Your task to perform on an android device: turn on airplane mode Image 0: 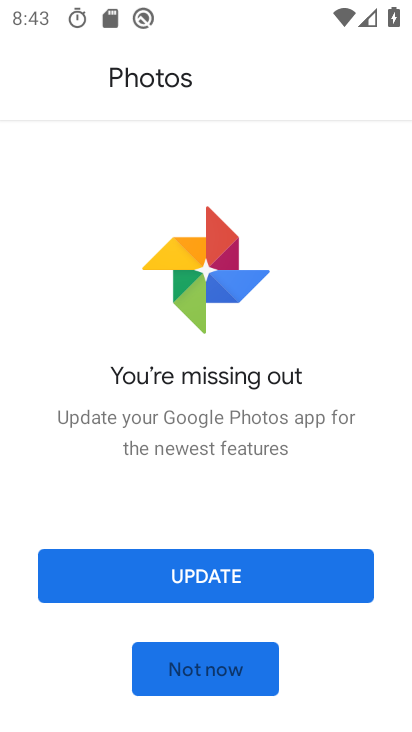
Step 0: press back button
Your task to perform on an android device: turn on airplane mode Image 1: 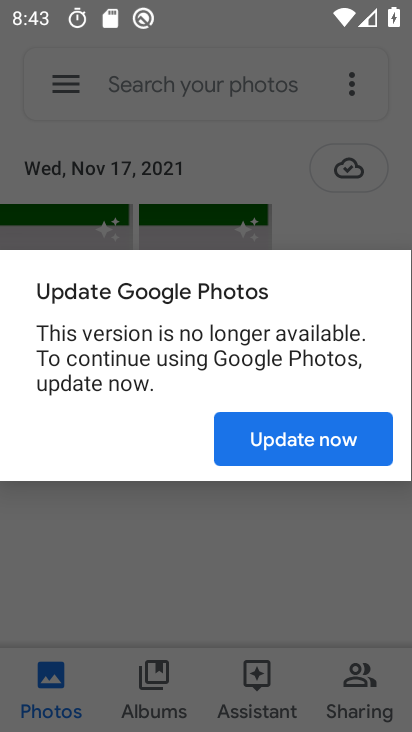
Step 1: press home button
Your task to perform on an android device: turn on airplane mode Image 2: 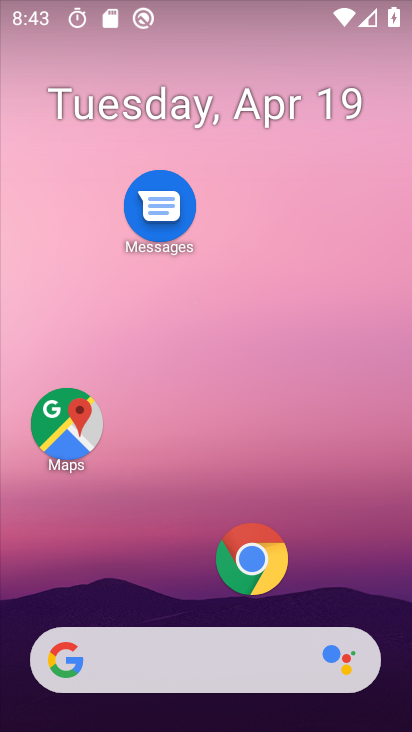
Step 2: drag from (201, 659) to (136, 5)
Your task to perform on an android device: turn on airplane mode Image 3: 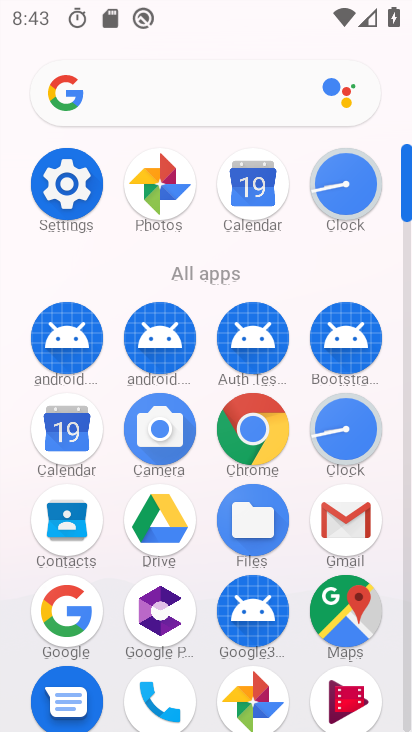
Step 3: click (73, 194)
Your task to perform on an android device: turn on airplane mode Image 4: 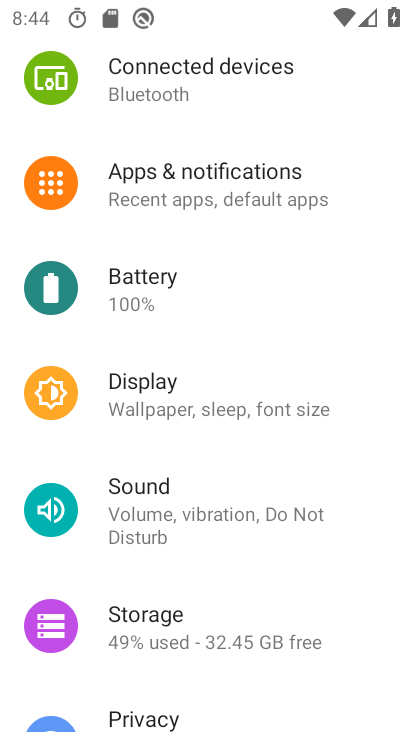
Step 4: drag from (178, 62) to (236, 419)
Your task to perform on an android device: turn on airplane mode Image 5: 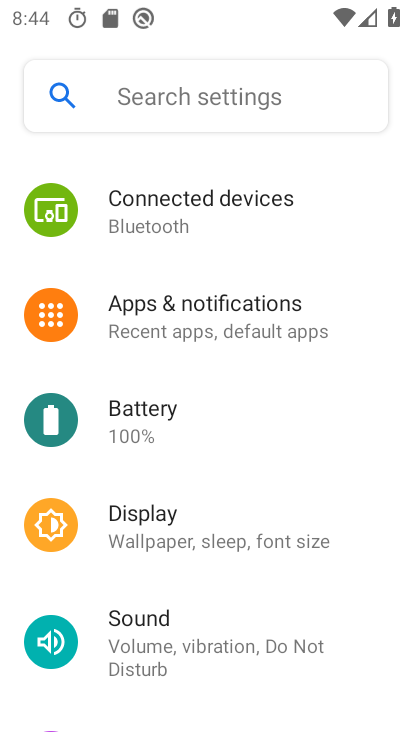
Step 5: drag from (176, 235) to (210, 458)
Your task to perform on an android device: turn on airplane mode Image 6: 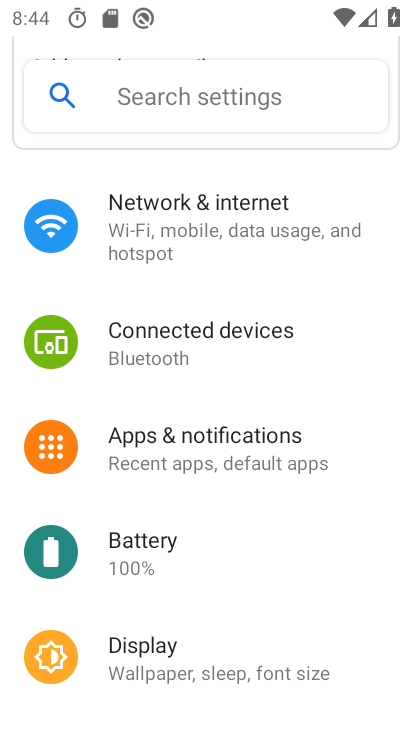
Step 6: click (161, 245)
Your task to perform on an android device: turn on airplane mode Image 7: 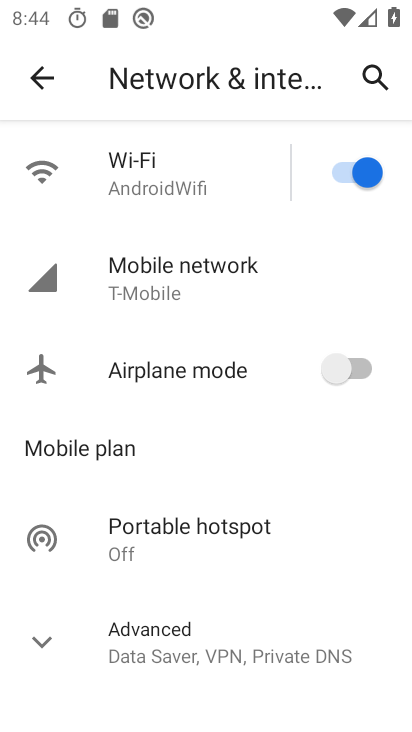
Step 7: click (335, 361)
Your task to perform on an android device: turn on airplane mode Image 8: 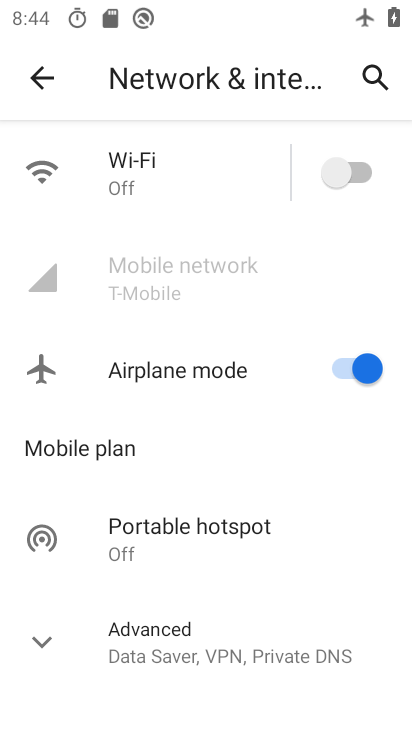
Step 8: task complete